Your task to perform on an android device: find which apps use the phone's location Image 0: 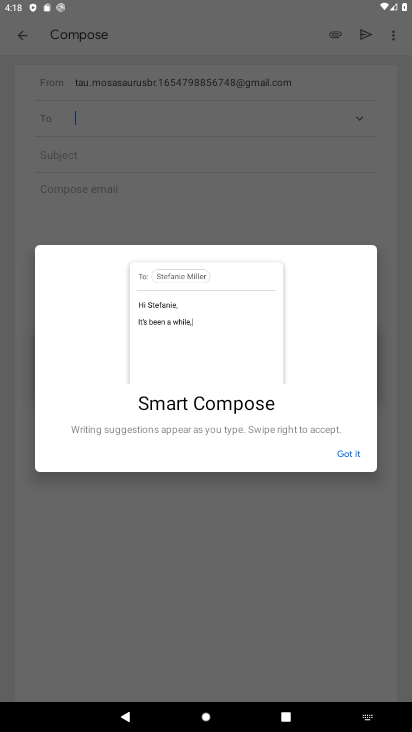
Step 0: press home button
Your task to perform on an android device: find which apps use the phone's location Image 1: 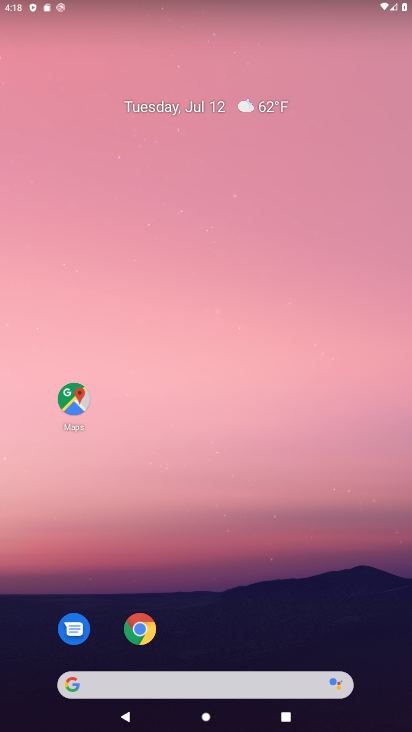
Step 1: drag from (208, 651) to (97, 92)
Your task to perform on an android device: find which apps use the phone's location Image 2: 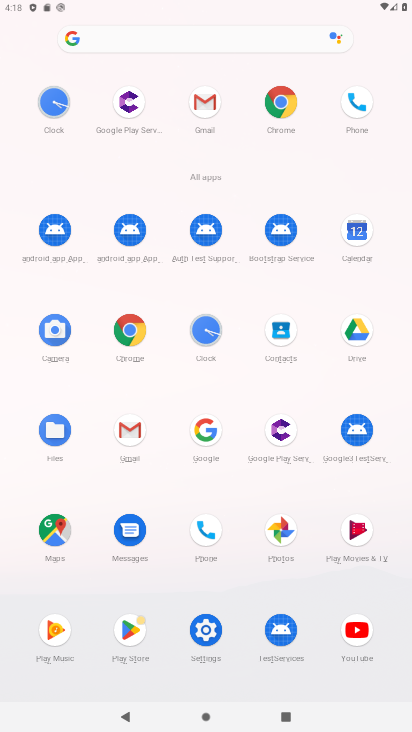
Step 2: click (214, 631)
Your task to perform on an android device: find which apps use the phone's location Image 3: 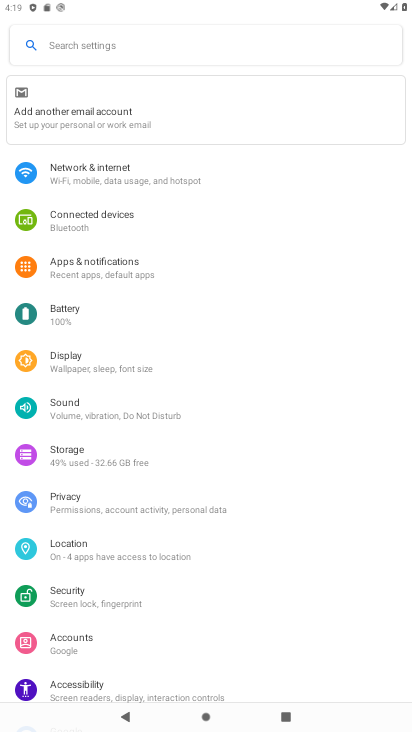
Step 3: click (105, 548)
Your task to perform on an android device: find which apps use the phone's location Image 4: 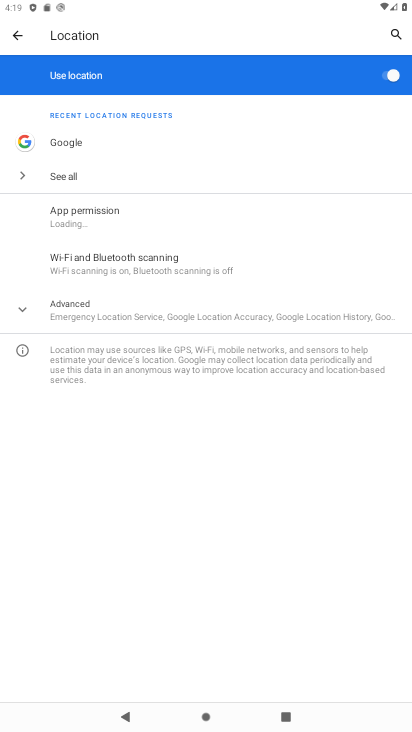
Step 4: click (51, 302)
Your task to perform on an android device: find which apps use the phone's location Image 5: 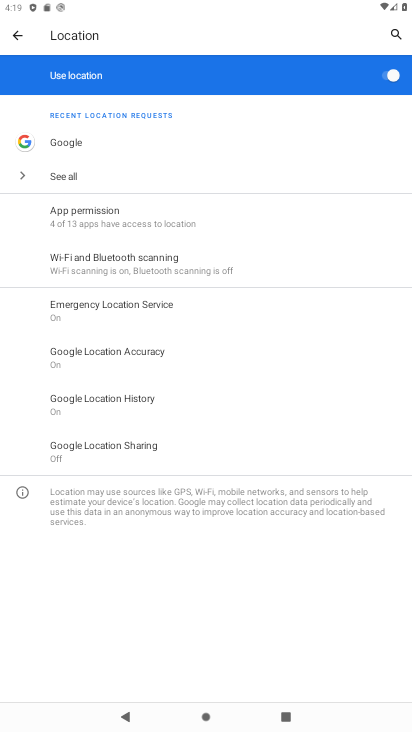
Step 5: click (71, 222)
Your task to perform on an android device: find which apps use the phone's location Image 6: 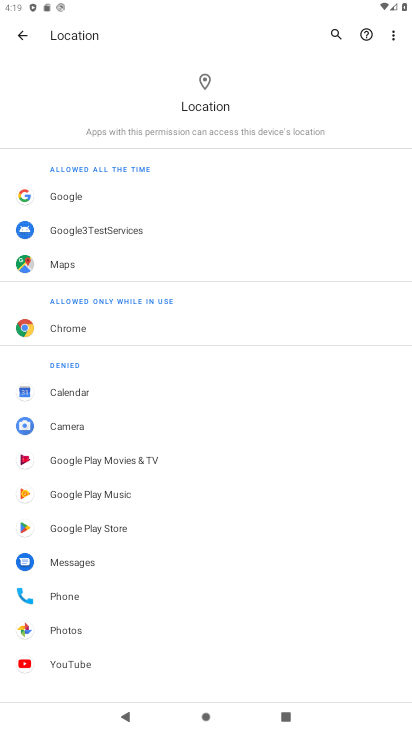
Step 6: task complete